Your task to perform on an android device: Show me popular games on the Play Store Image 0: 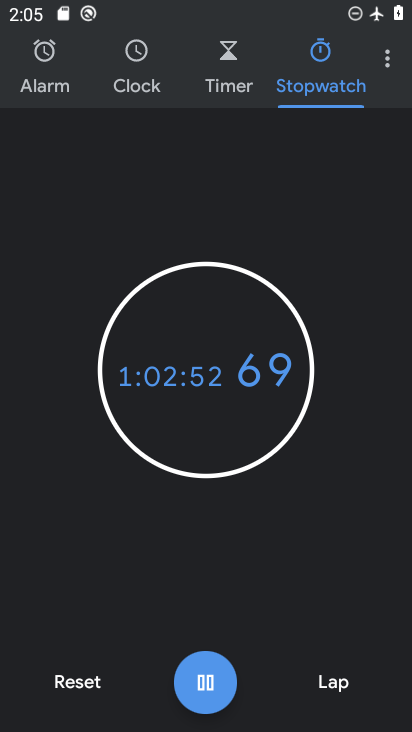
Step 0: press home button
Your task to perform on an android device: Show me popular games on the Play Store Image 1: 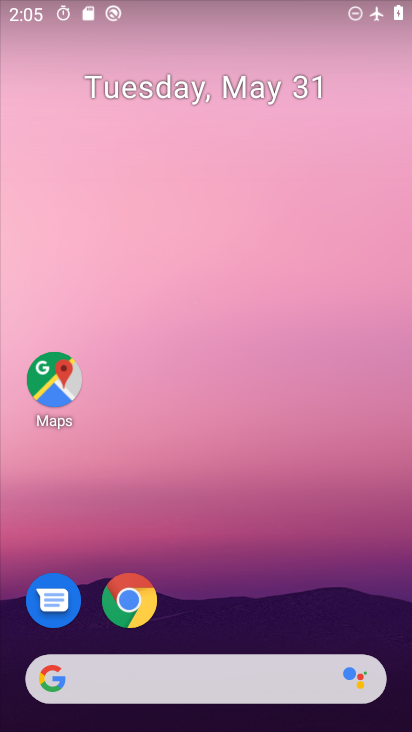
Step 1: drag from (221, 712) to (221, 52)
Your task to perform on an android device: Show me popular games on the Play Store Image 2: 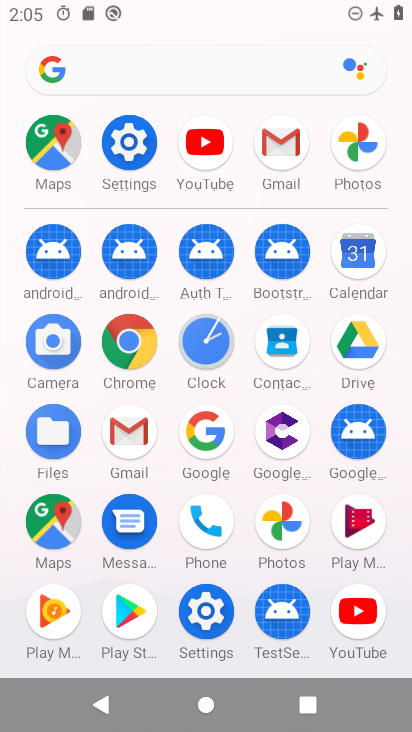
Step 2: click (126, 130)
Your task to perform on an android device: Show me popular games on the Play Store Image 3: 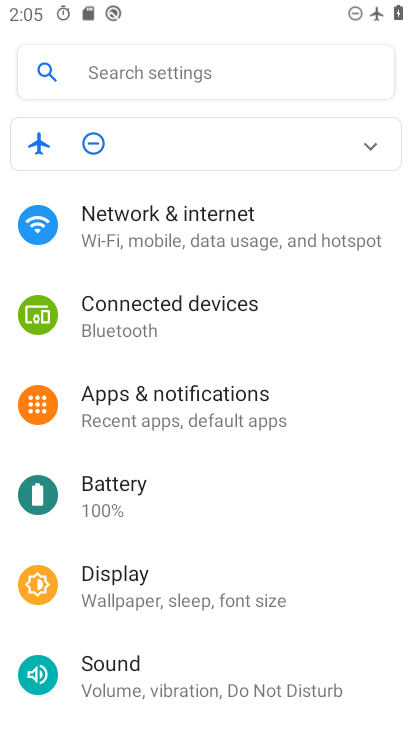
Step 3: click (173, 234)
Your task to perform on an android device: Show me popular games on the Play Store Image 4: 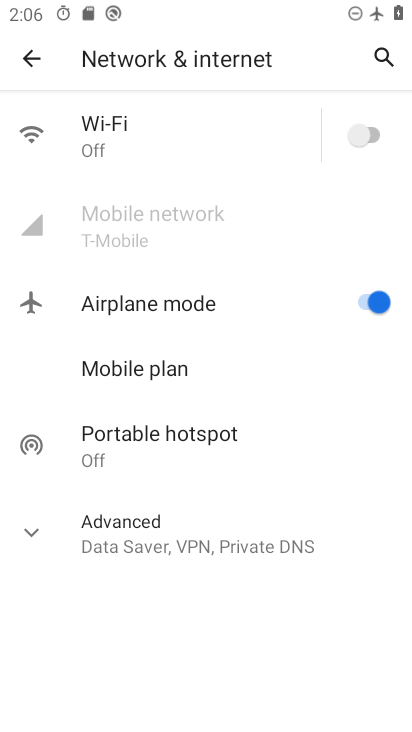
Step 4: click (360, 301)
Your task to perform on an android device: Show me popular games on the Play Store Image 5: 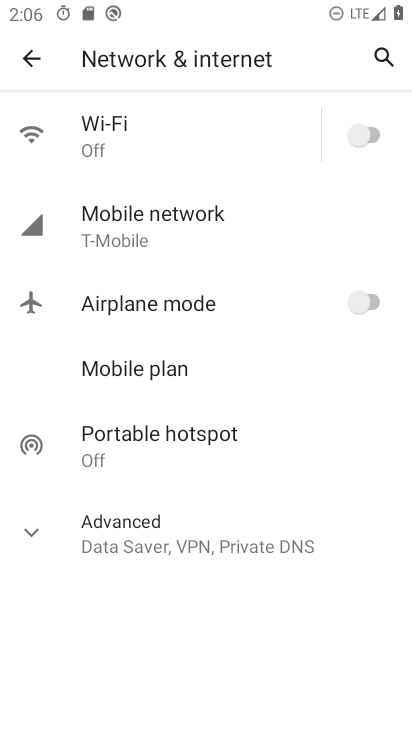
Step 5: press home button
Your task to perform on an android device: Show me popular games on the Play Store Image 6: 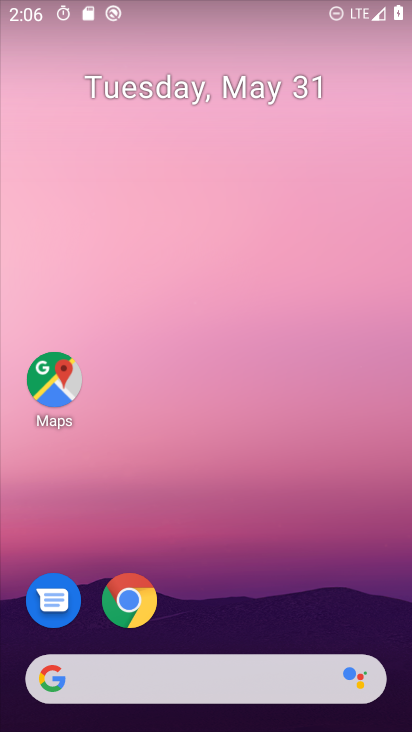
Step 6: drag from (206, 709) to (198, 146)
Your task to perform on an android device: Show me popular games on the Play Store Image 7: 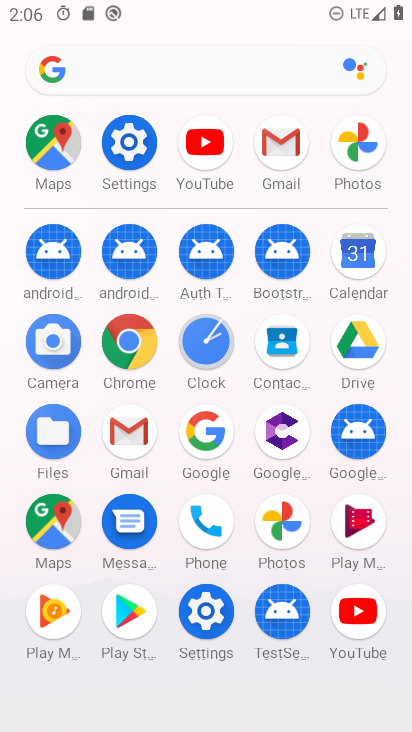
Step 7: click (125, 616)
Your task to perform on an android device: Show me popular games on the Play Store Image 8: 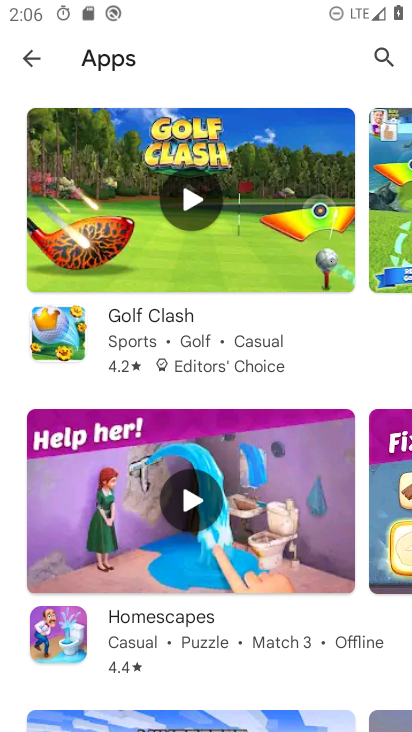
Step 8: drag from (197, 692) to (201, 329)
Your task to perform on an android device: Show me popular games on the Play Store Image 9: 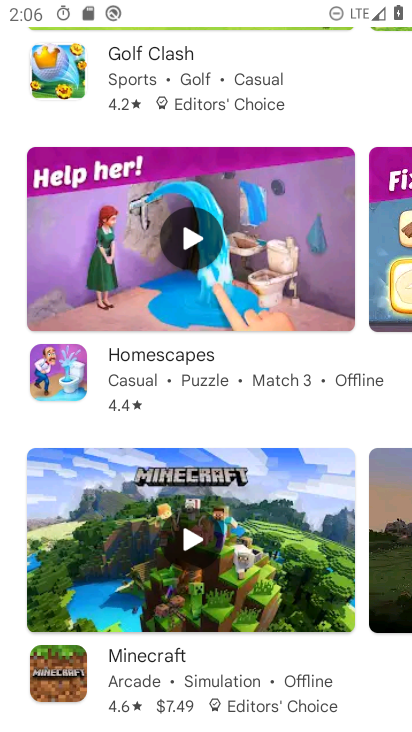
Step 9: drag from (288, 95) to (299, 534)
Your task to perform on an android device: Show me popular games on the Play Store Image 10: 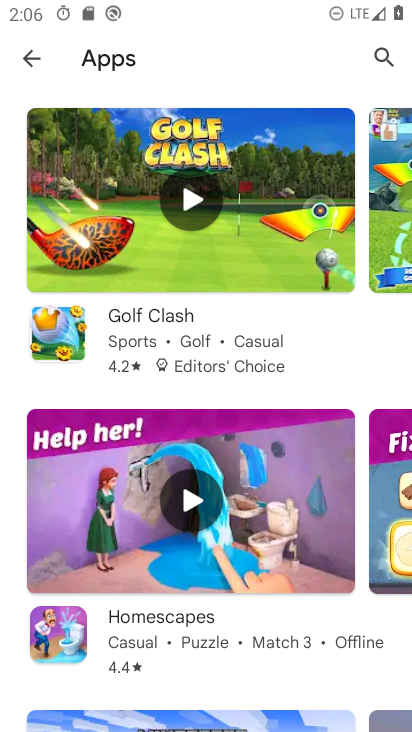
Step 10: drag from (283, 231) to (294, 552)
Your task to perform on an android device: Show me popular games on the Play Store Image 11: 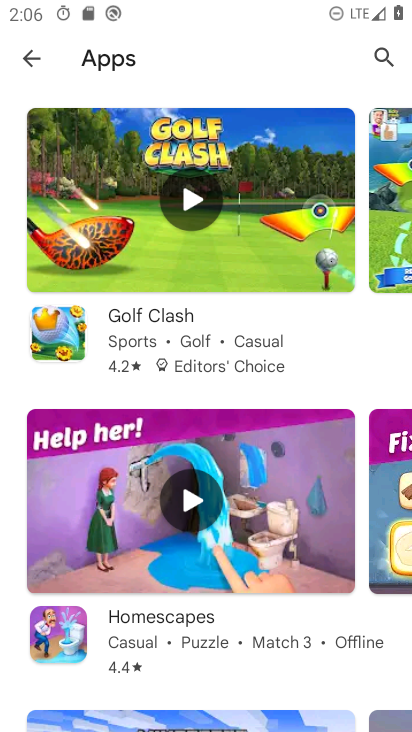
Step 11: click (29, 51)
Your task to perform on an android device: Show me popular games on the Play Store Image 12: 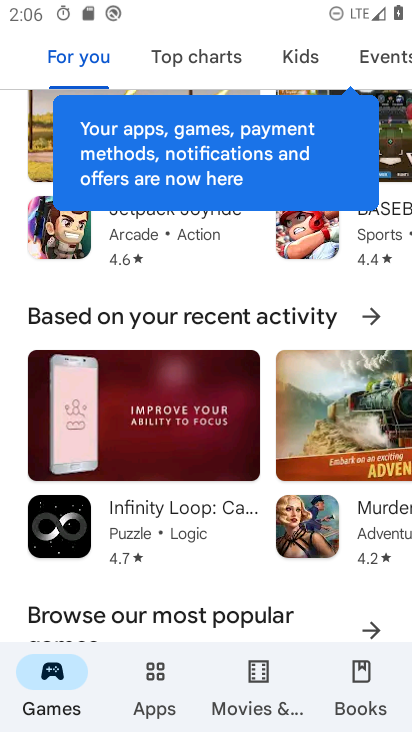
Step 12: drag from (197, 613) to (182, 253)
Your task to perform on an android device: Show me popular games on the Play Store Image 13: 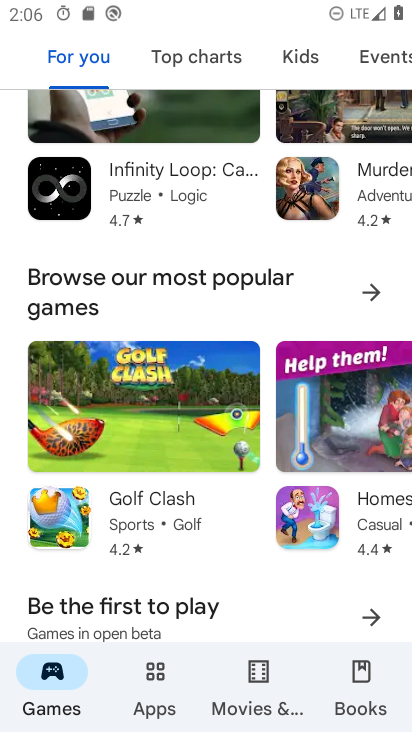
Step 13: click (306, 282)
Your task to perform on an android device: Show me popular games on the Play Store Image 14: 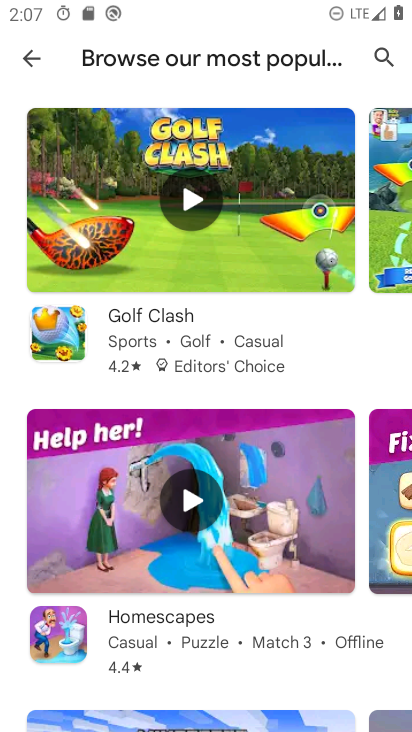
Step 14: task complete